Your task to perform on an android device: open wifi settings Image 0: 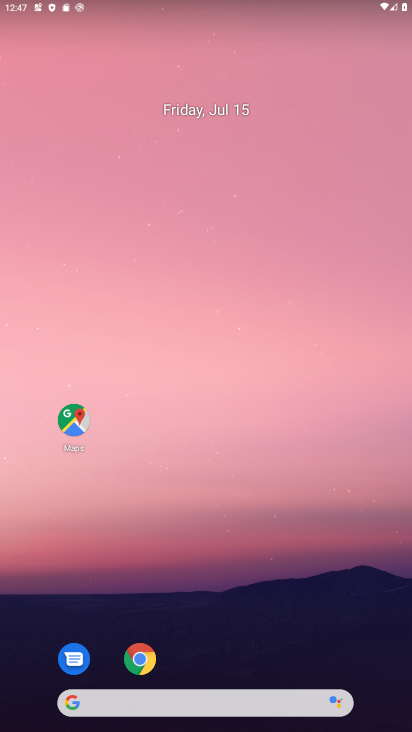
Step 0: drag from (188, 642) to (200, 155)
Your task to perform on an android device: open wifi settings Image 1: 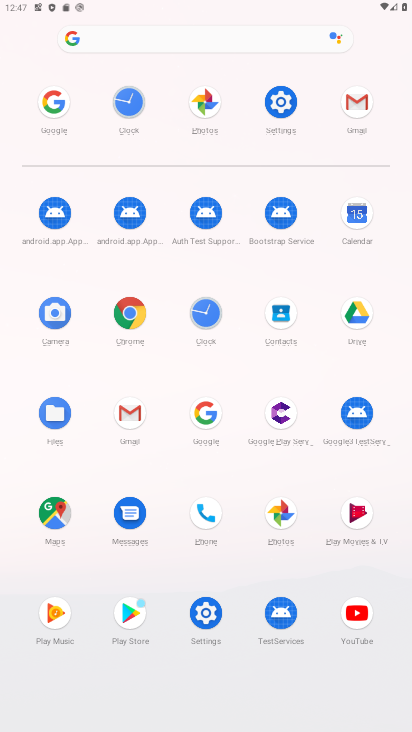
Step 1: click (267, 99)
Your task to perform on an android device: open wifi settings Image 2: 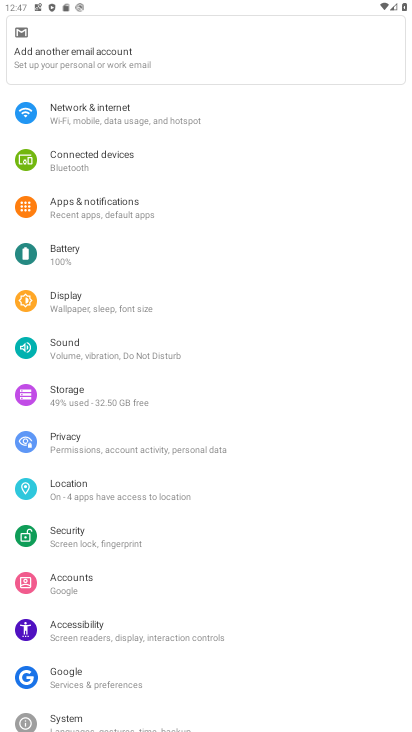
Step 2: click (120, 115)
Your task to perform on an android device: open wifi settings Image 3: 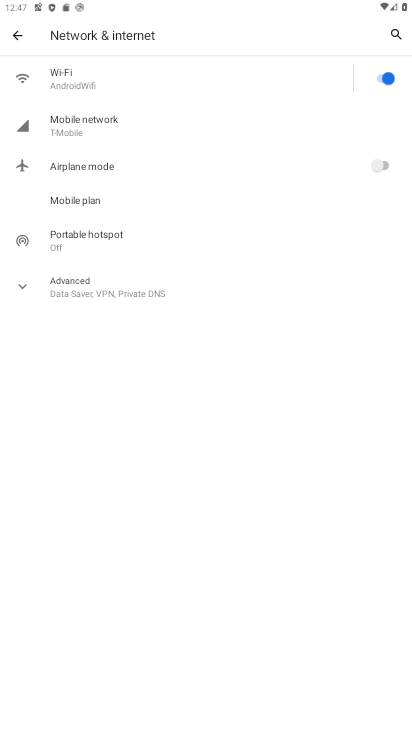
Step 3: click (119, 93)
Your task to perform on an android device: open wifi settings Image 4: 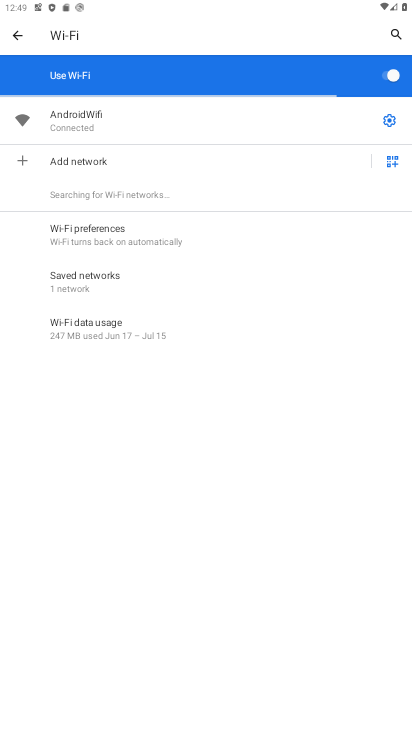
Step 4: task complete